Your task to perform on an android device: install app "PlayWell" Image 0: 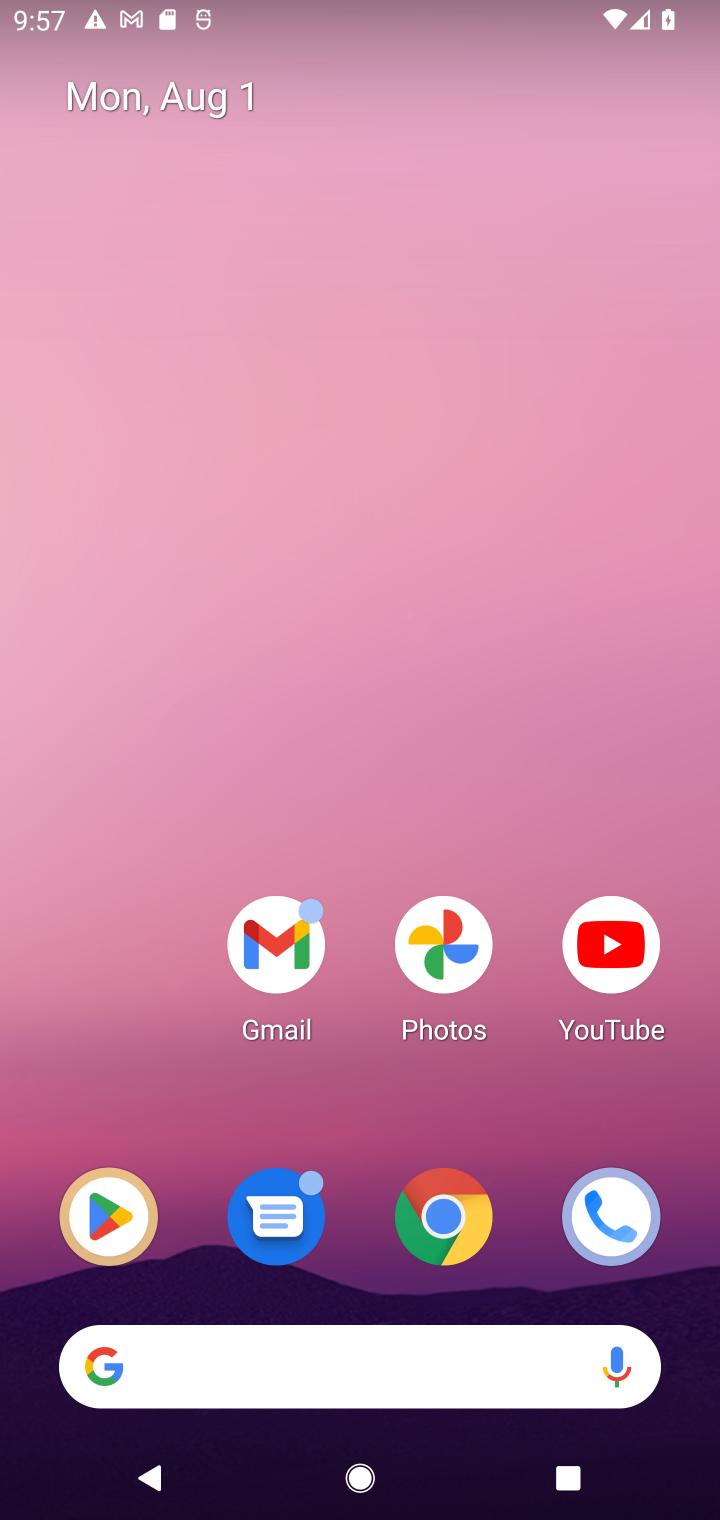
Step 0: click (110, 1219)
Your task to perform on an android device: install app "PlayWell" Image 1: 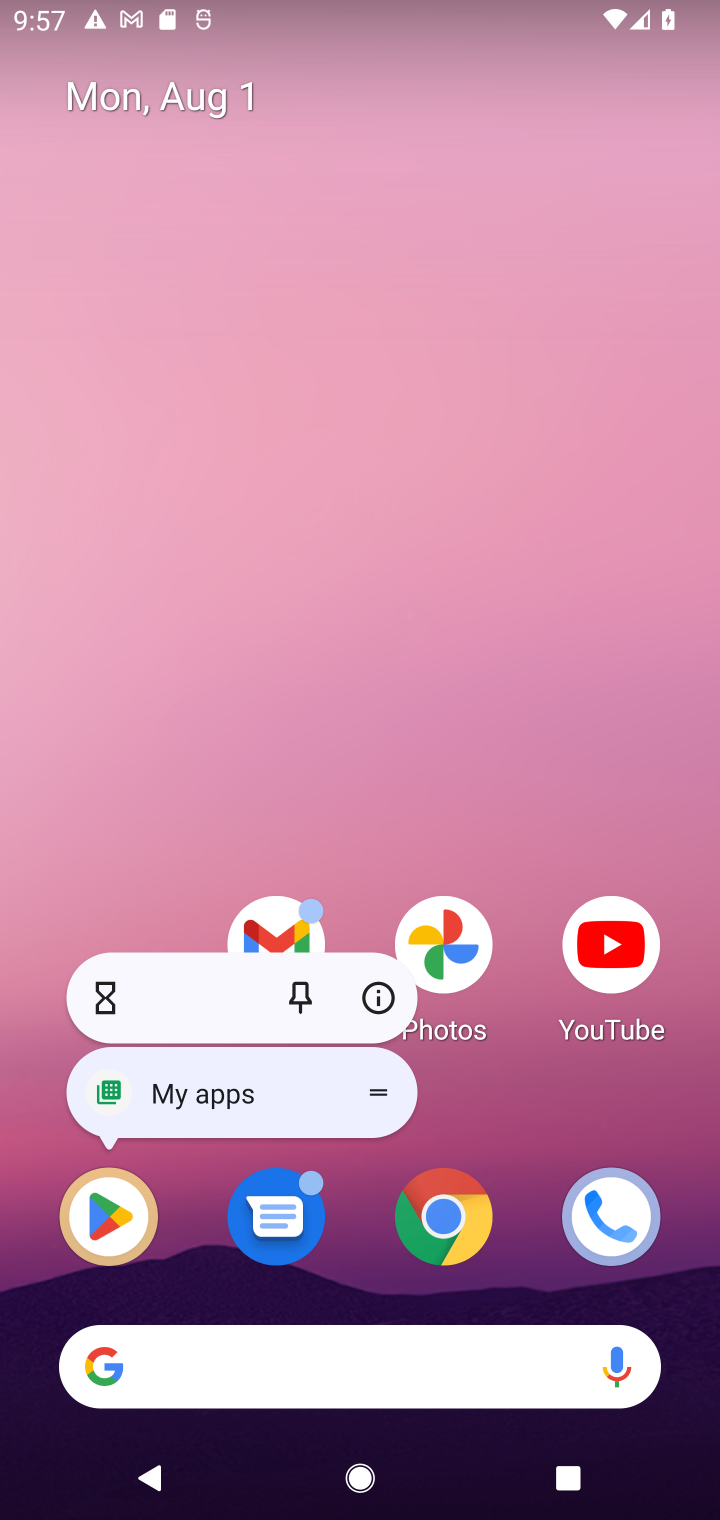
Step 1: click (105, 1221)
Your task to perform on an android device: install app "PlayWell" Image 2: 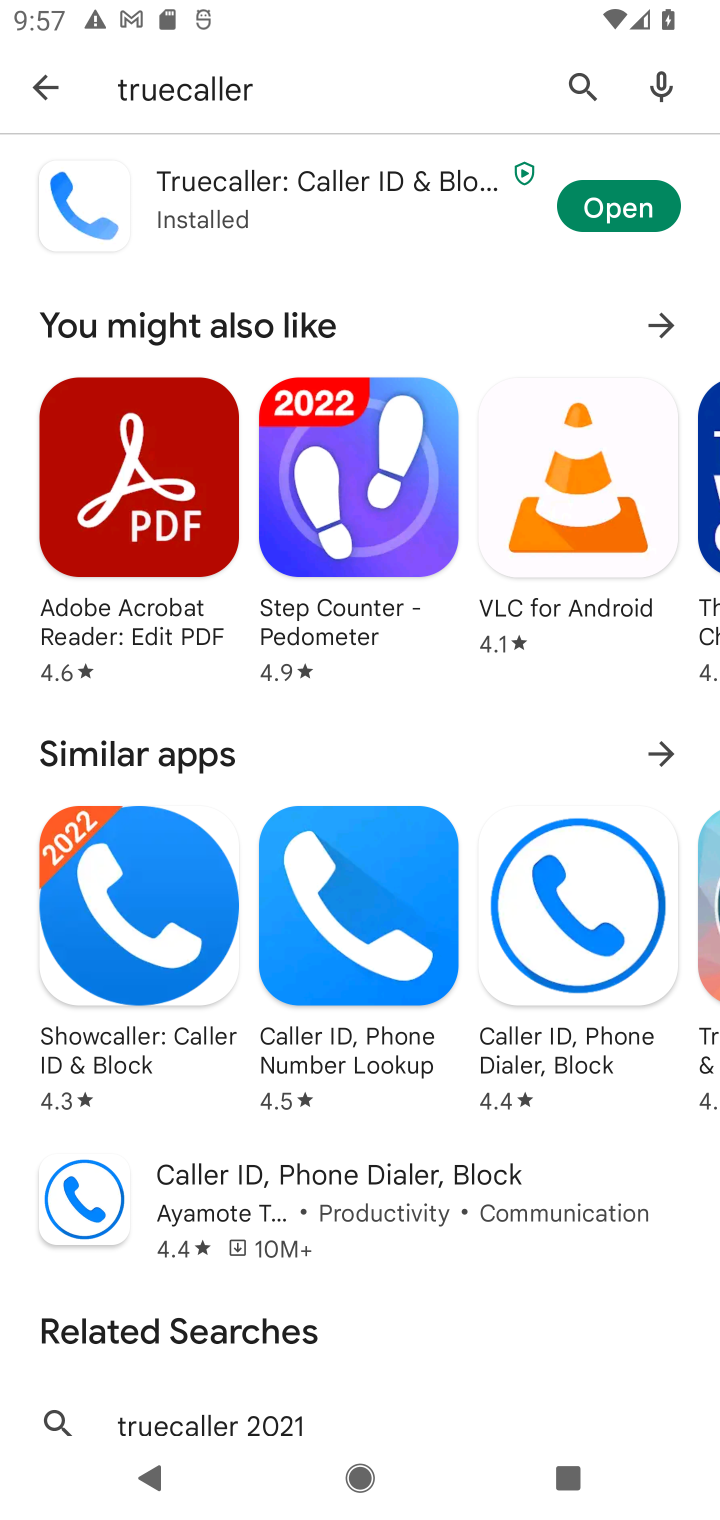
Step 2: click (561, 76)
Your task to perform on an android device: install app "PlayWell" Image 3: 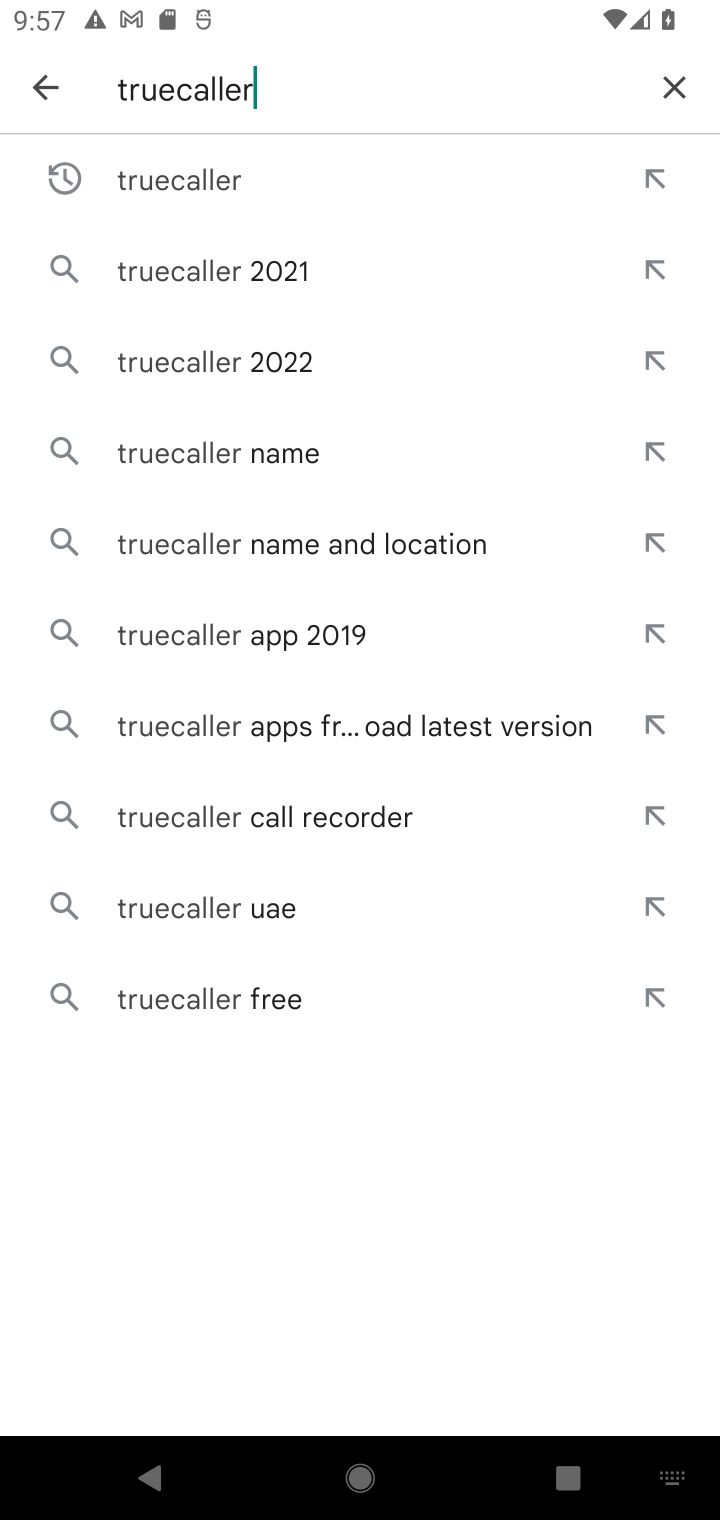
Step 3: click (679, 83)
Your task to perform on an android device: install app "PlayWell" Image 4: 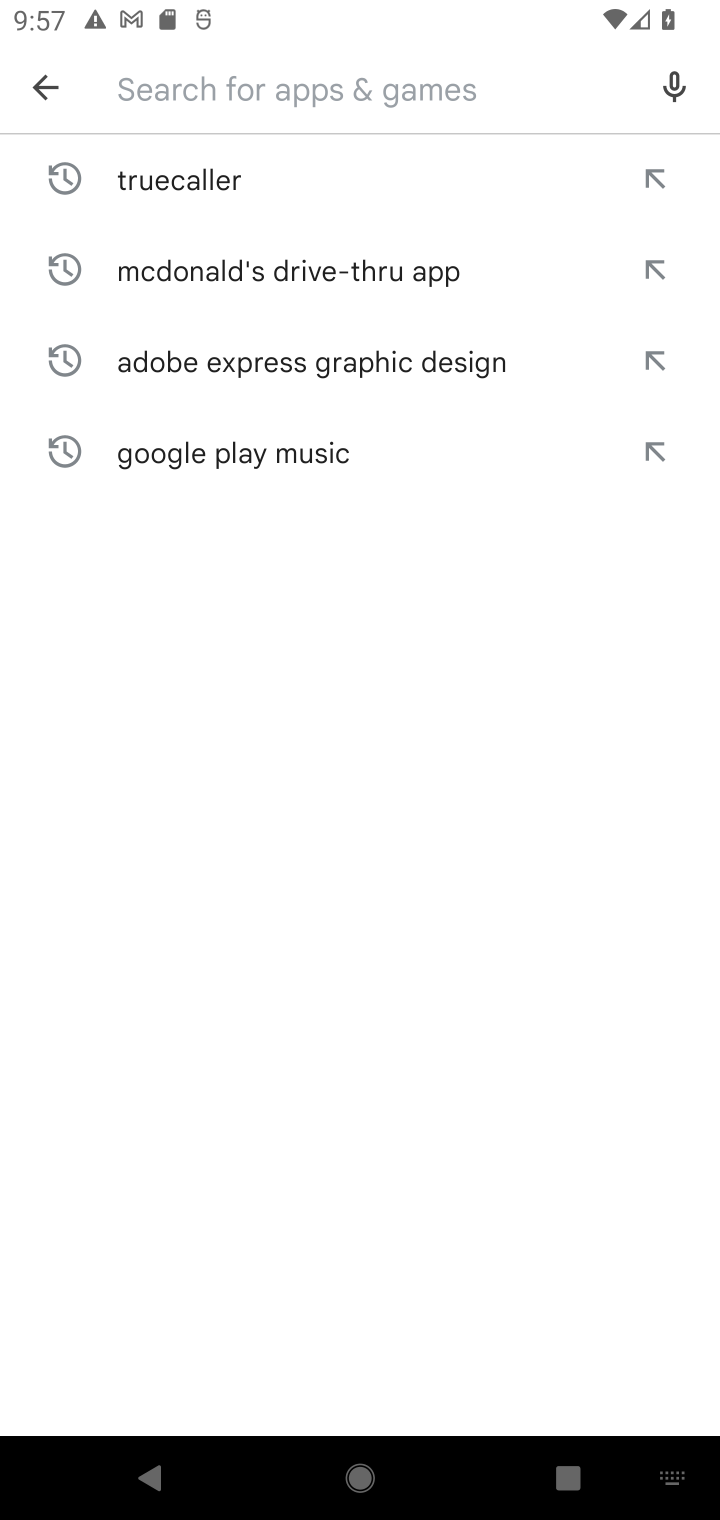
Step 4: click (269, 95)
Your task to perform on an android device: install app "PlayWell" Image 5: 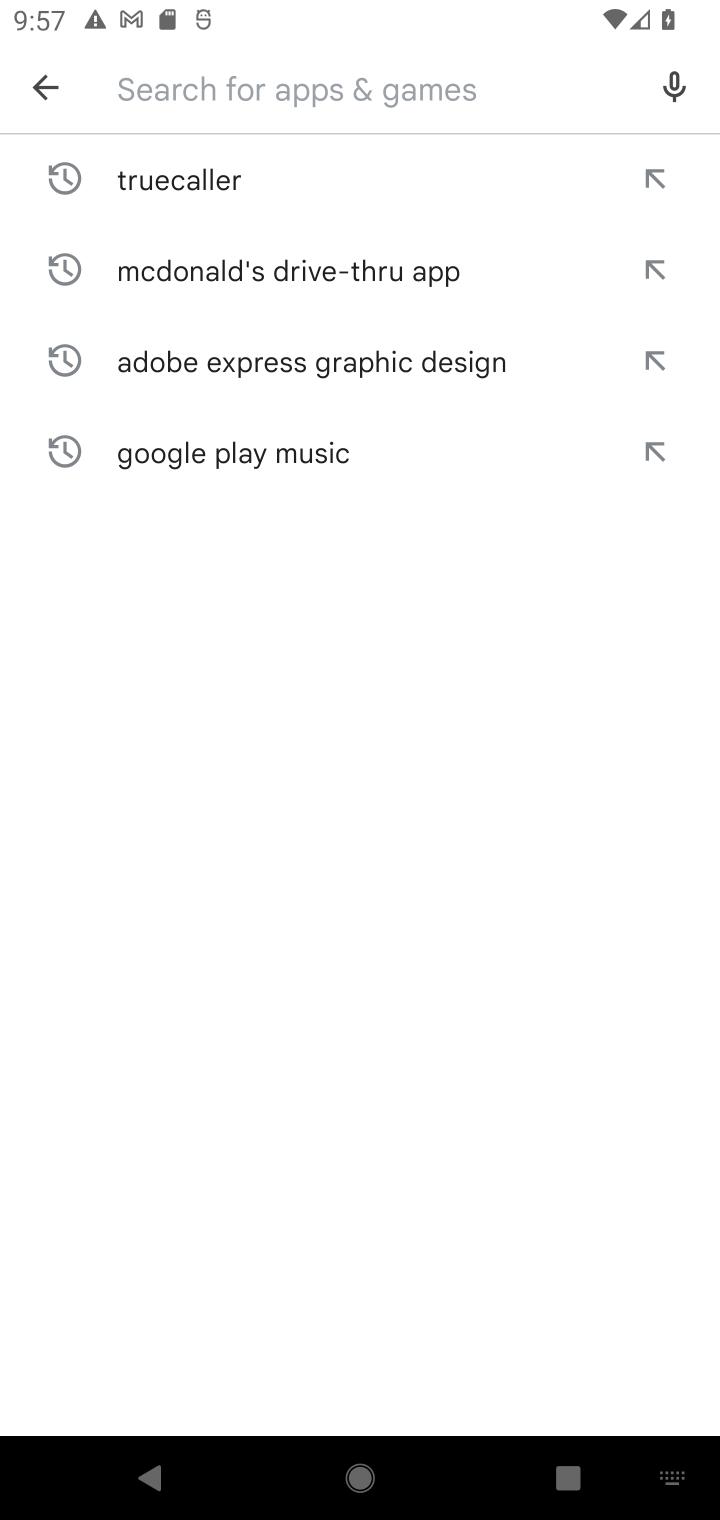
Step 5: type "PlayWell"
Your task to perform on an android device: install app "PlayWell" Image 6: 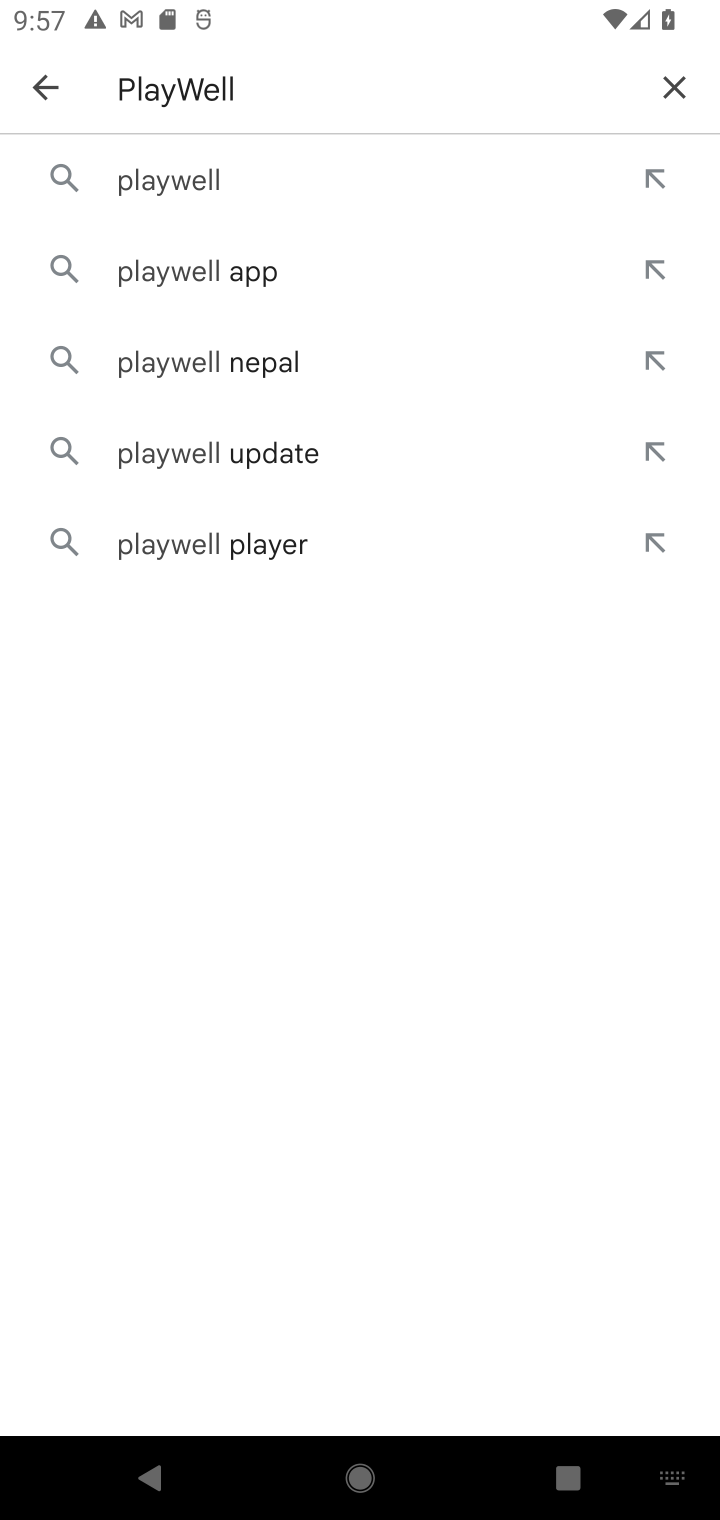
Step 6: click (172, 196)
Your task to perform on an android device: install app "PlayWell" Image 7: 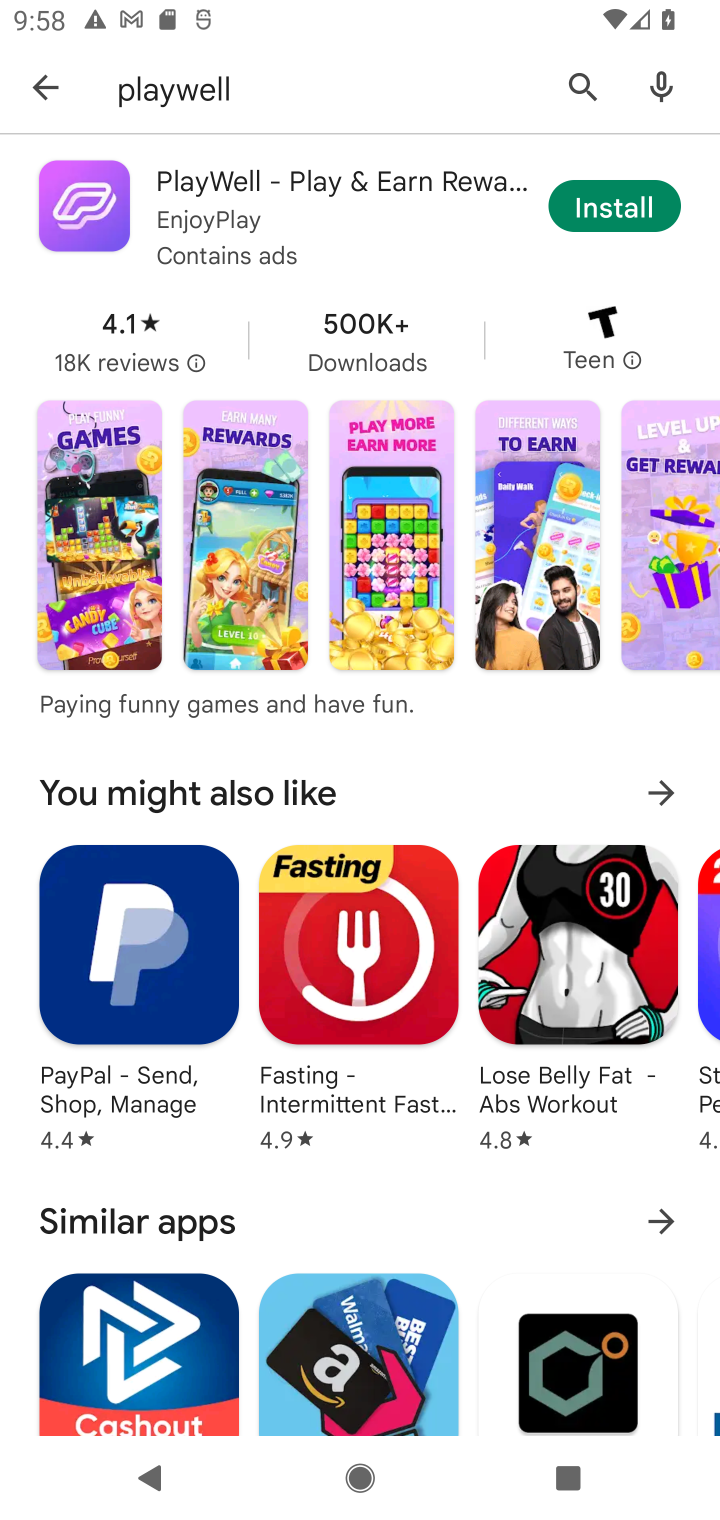
Step 7: click (625, 194)
Your task to perform on an android device: install app "PlayWell" Image 8: 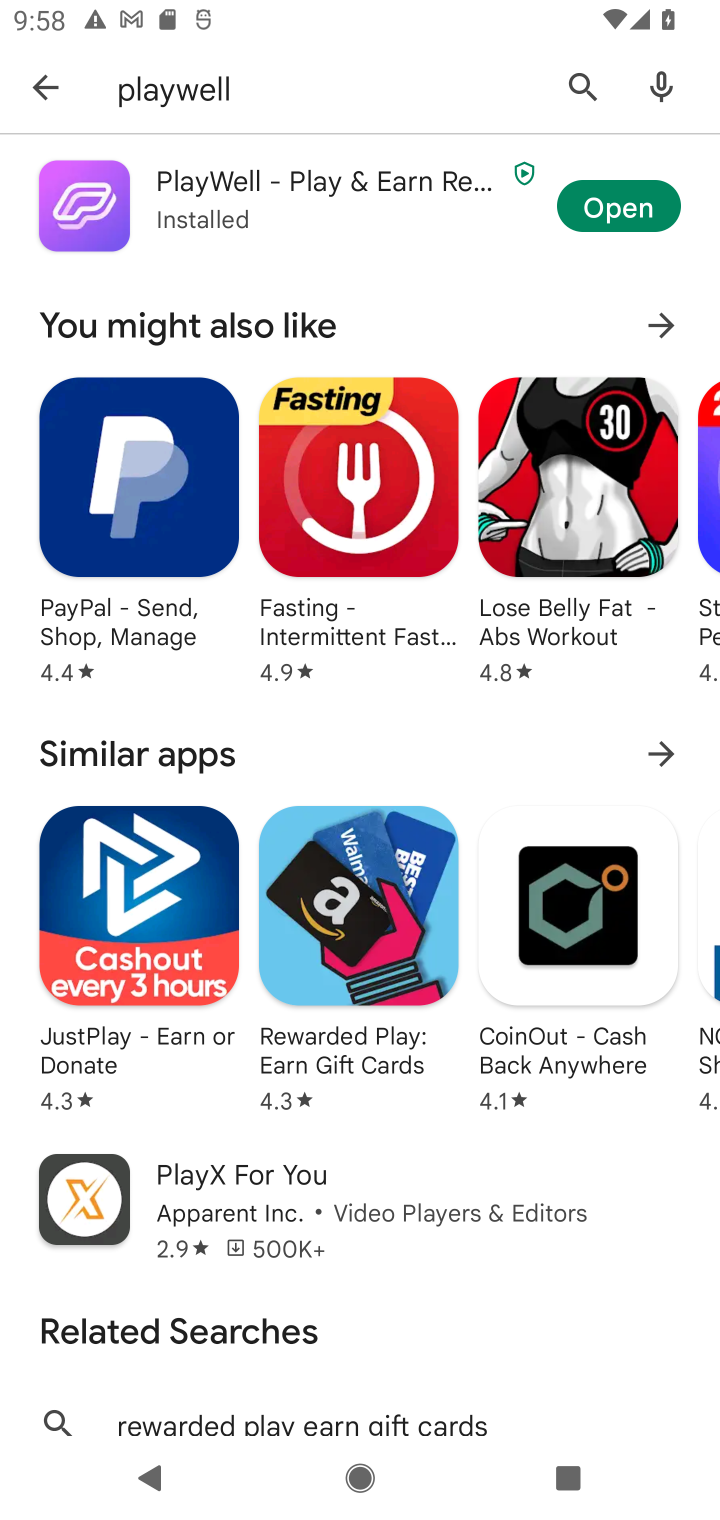
Step 8: task complete